Your task to perform on an android device: Open Google Image 0: 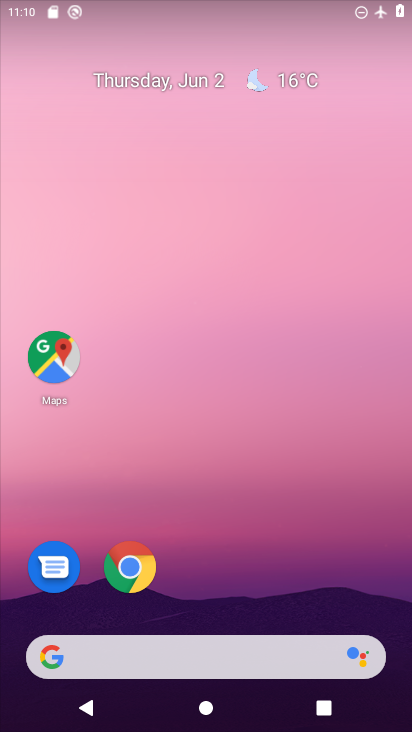
Step 0: drag from (140, 730) to (148, 165)
Your task to perform on an android device: Open Google Image 1: 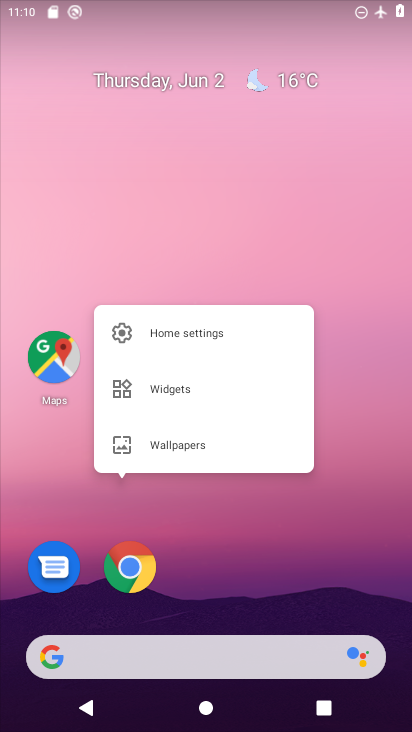
Step 1: drag from (149, 724) to (161, 122)
Your task to perform on an android device: Open Google Image 2: 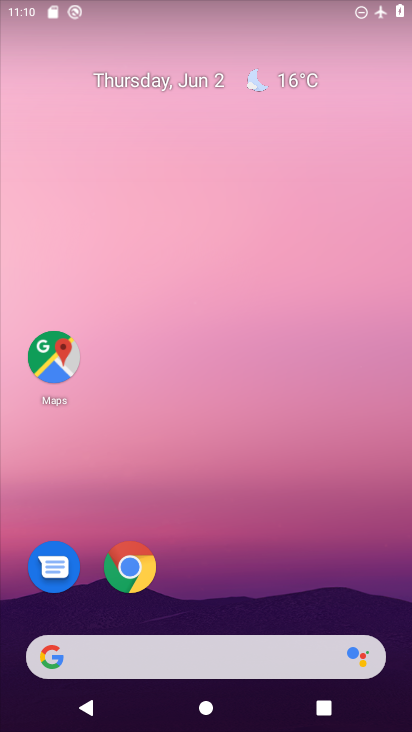
Step 2: drag from (127, 727) to (140, 0)
Your task to perform on an android device: Open Google Image 3: 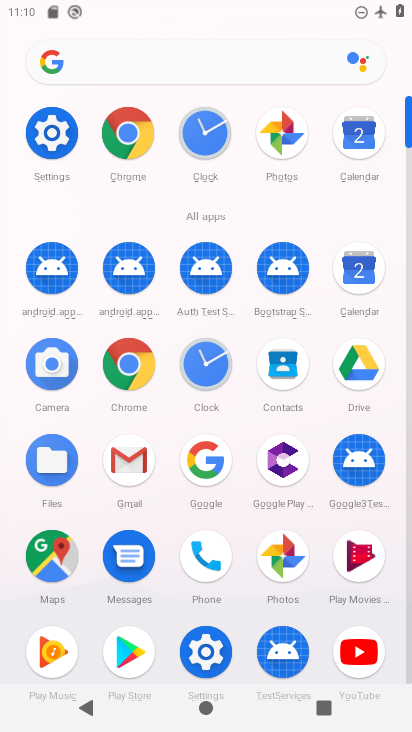
Step 3: click (209, 474)
Your task to perform on an android device: Open Google Image 4: 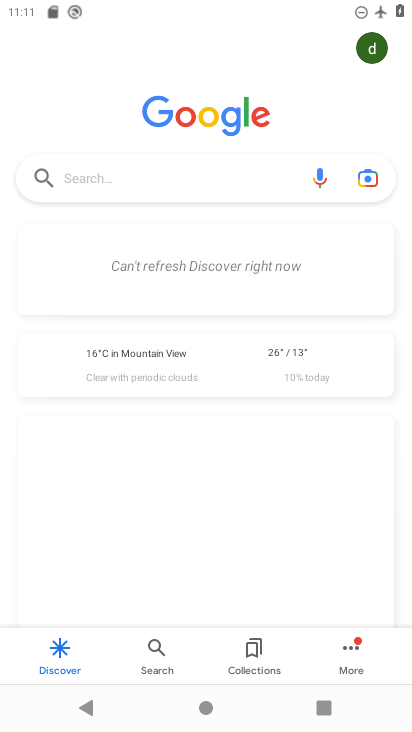
Step 4: task complete